Your task to perform on an android device: move an email to a new category in the gmail app Image 0: 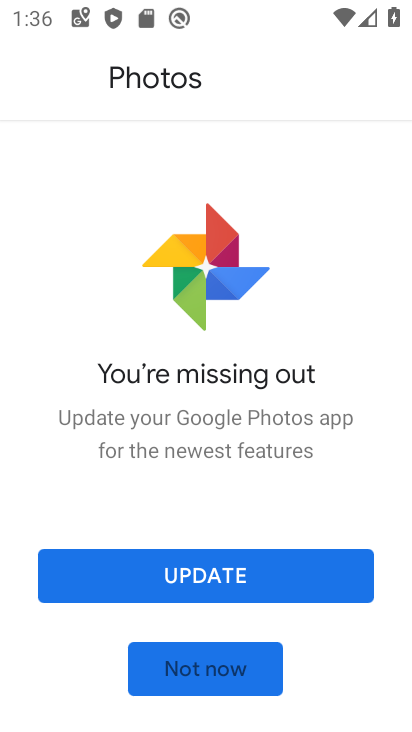
Step 0: click (199, 561)
Your task to perform on an android device: move an email to a new category in the gmail app Image 1: 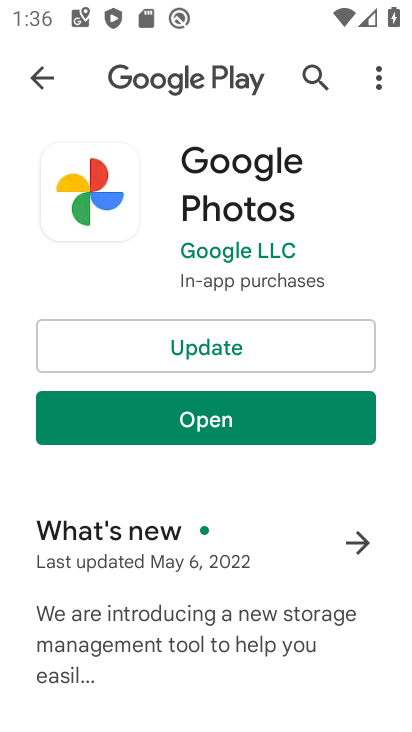
Step 1: press back button
Your task to perform on an android device: move an email to a new category in the gmail app Image 2: 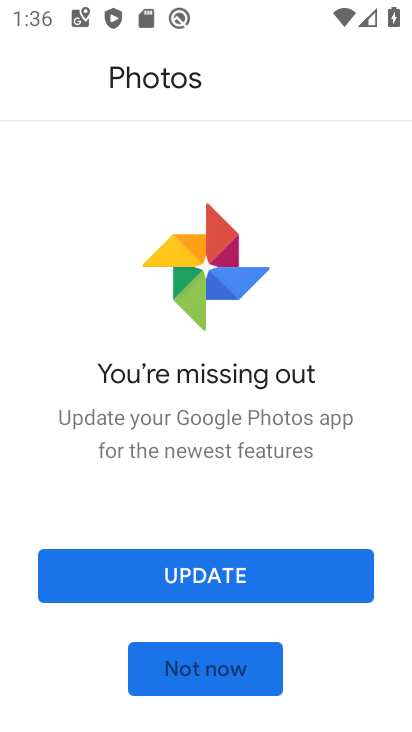
Step 2: click (189, 667)
Your task to perform on an android device: move an email to a new category in the gmail app Image 3: 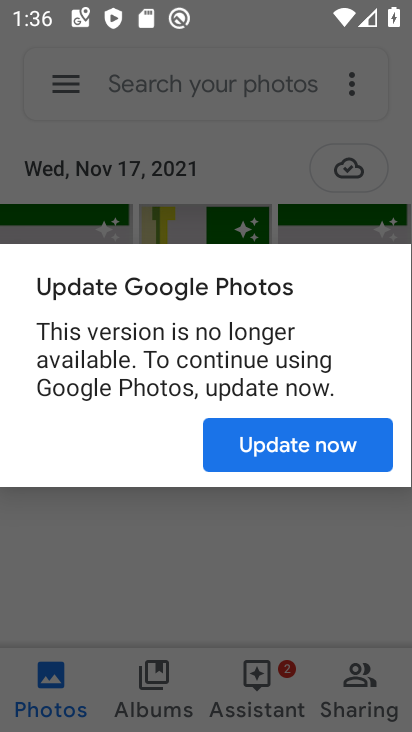
Step 3: click (261, 433)
Your task to perform on an android device: move an email to a new category in the gmail app Image 4: 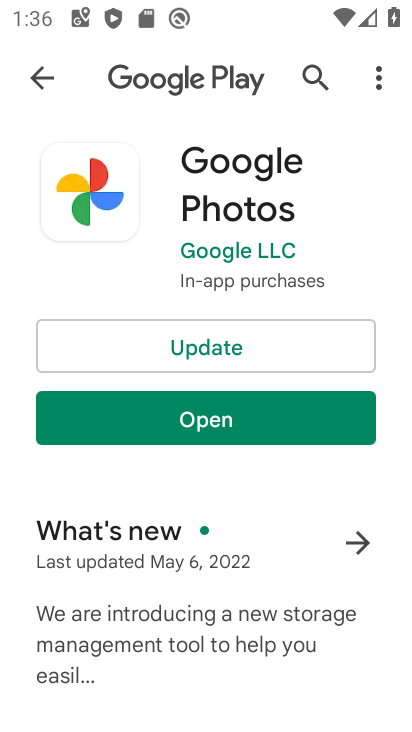
Step 4: press back button
Your task to perform on an android device: move an email to a new category in the gmail app Image 5: 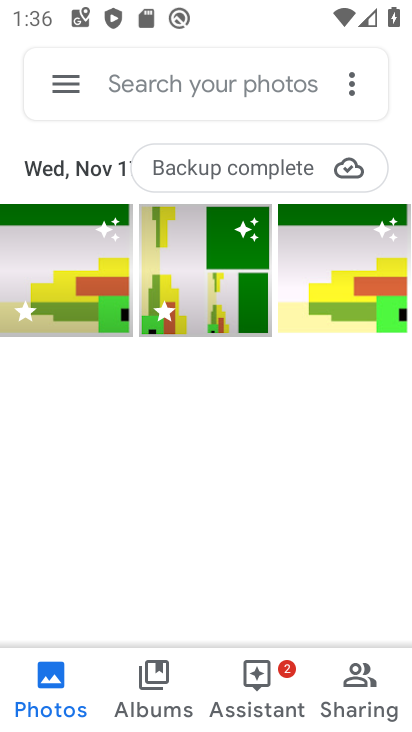
Step 5: press home button
Your task to perform on an android device: move an email to a new category in the gmail app Image 6: 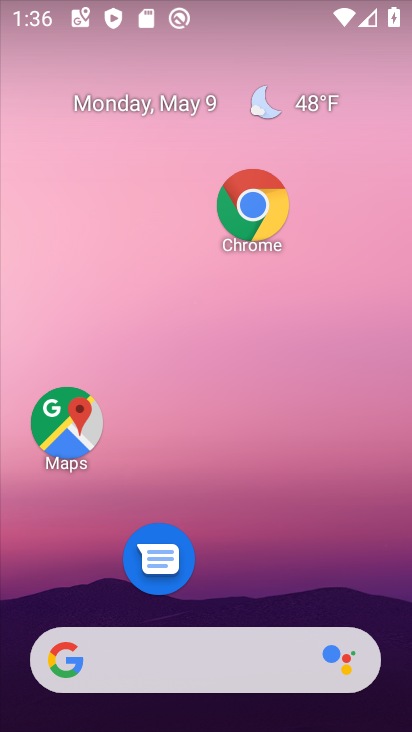
Step 6: drag from (244, 563) to (251, 244)
Your task to perform on an android device: move an email to a new category in the gmail app Image 7: 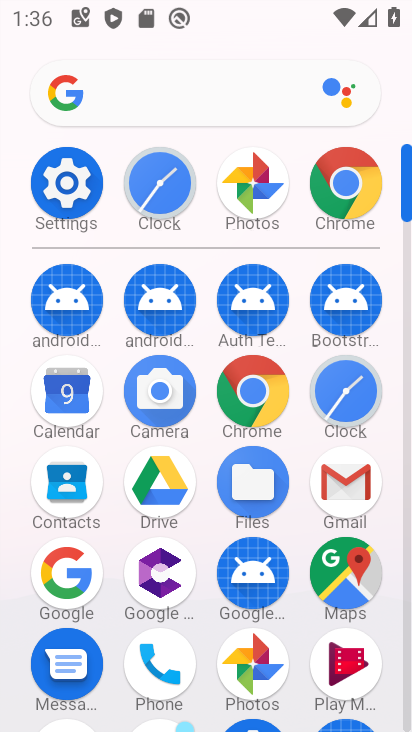
Step 7: click (357, 469)
Your task to perform on an android device: move an email to a new category in the gmail app Image 8: 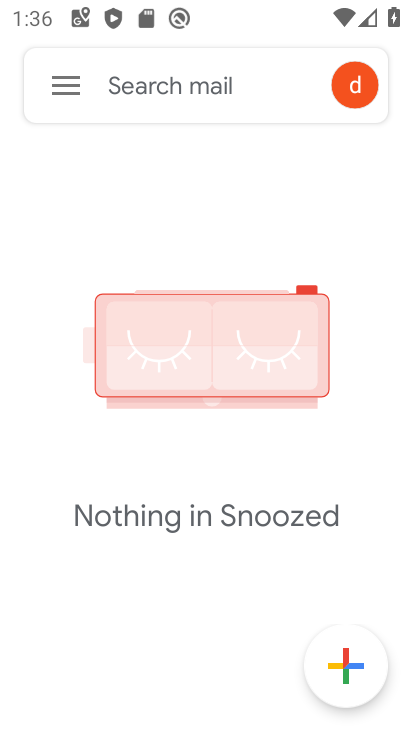
Step 8: click (58, 85)
Your task to perform on an android device: move an email to a new category in the gmail app Image 9: 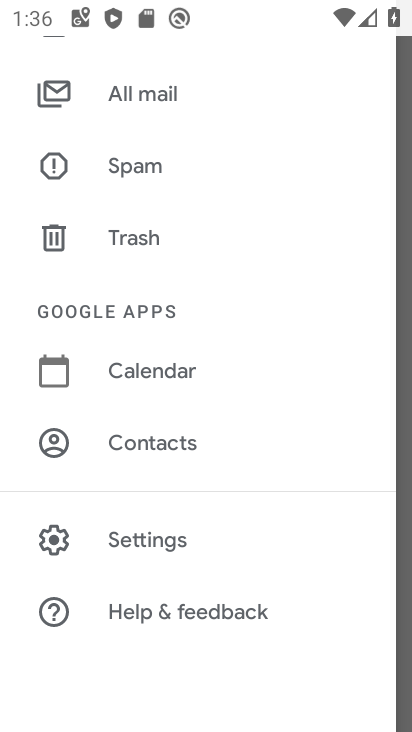
Step 9: click (189, 82)
Your task to perform on an android device: move an email to a new category in the gmail app Image 10: 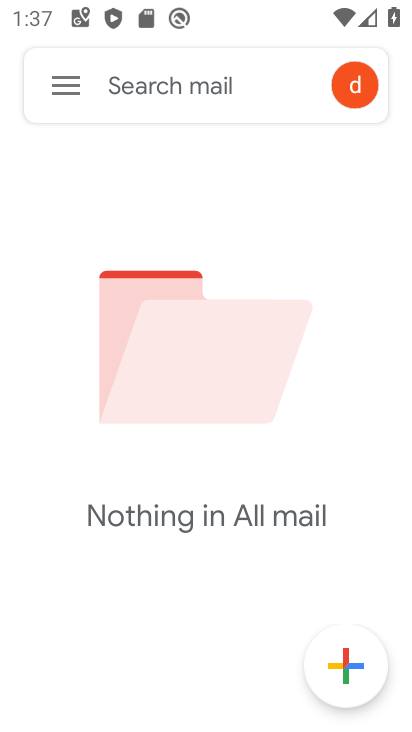
Step 10: task complete